Your task to perform on an android device: turn on javascript in the chrome app Image 0: 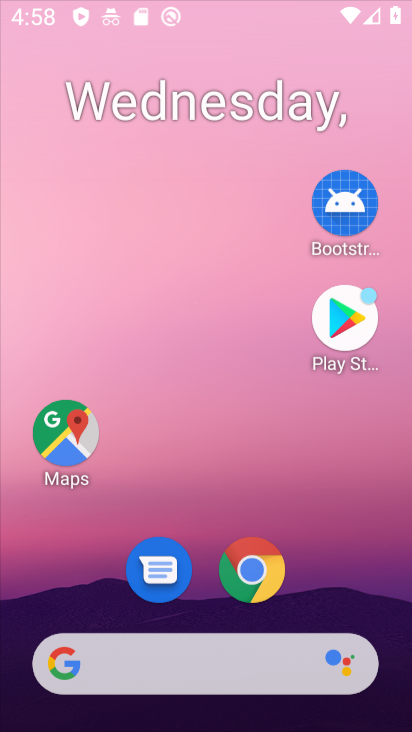
Step 0: drag from (335, 483) to (201, 16)
Your task to perform on an android device: turn on javascript in the chrome app Image 1: 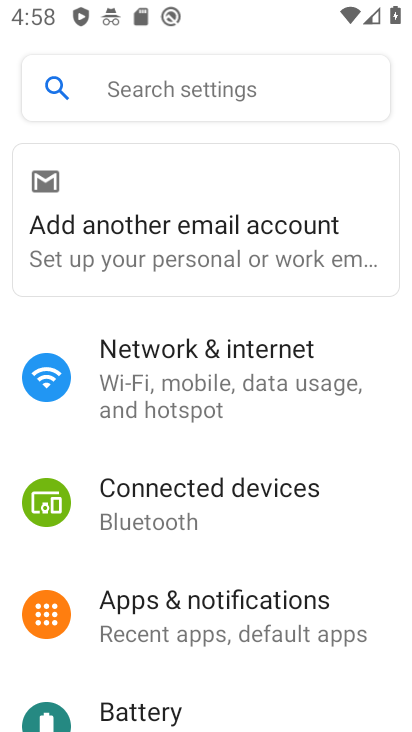
Step 1: press home button
Your task to perform on an android device: turn on javascript in the chrome app Image 2: 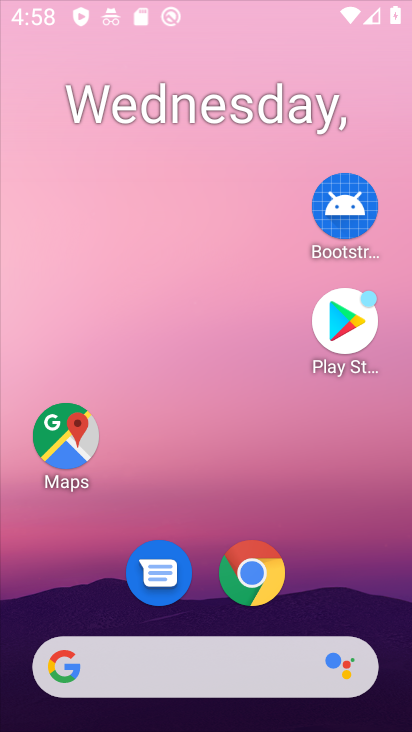
Step 2: drag from (164, 659) to (267, 94)
Your task to perform on an android device: turn on javascript in the chrome app Image 3: 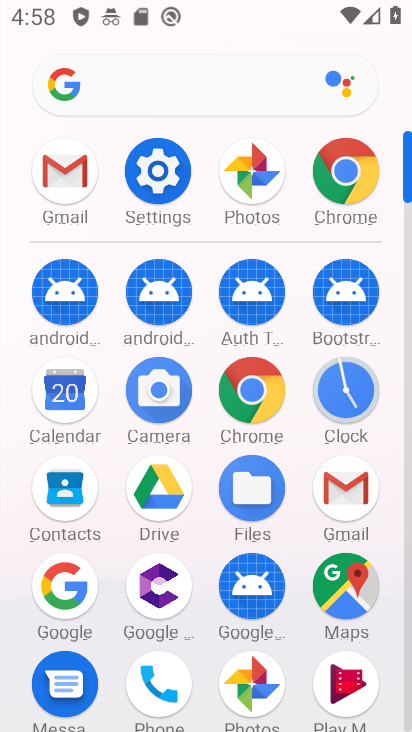
Step 3: click (341, 164)
Your task to perform on an android device: turn on javascript in the chrome app Image 4: 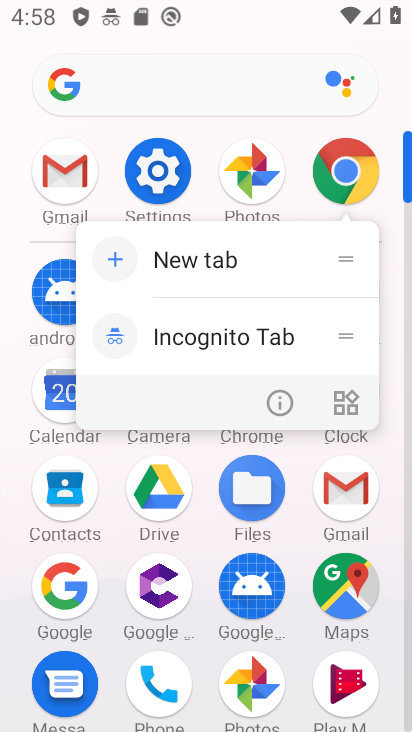
Step 4: click (329, 173)
Your task to perform on an android device: turn on javascript in the chrome app Image 5: 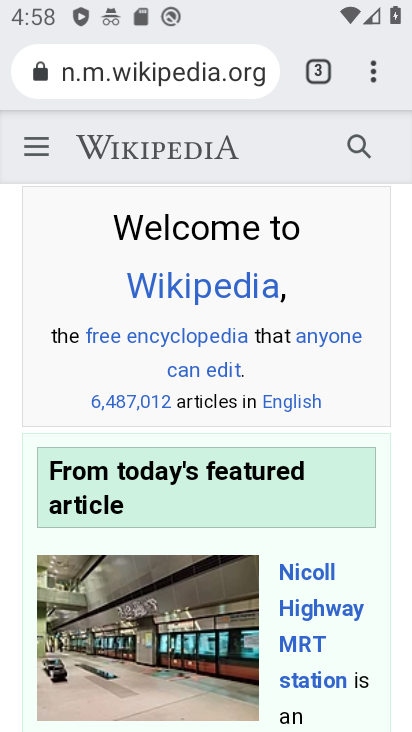
Step 5: click (356, 69)
Your task to perform on an android device: turn on javascript in the chrome app Image 6: 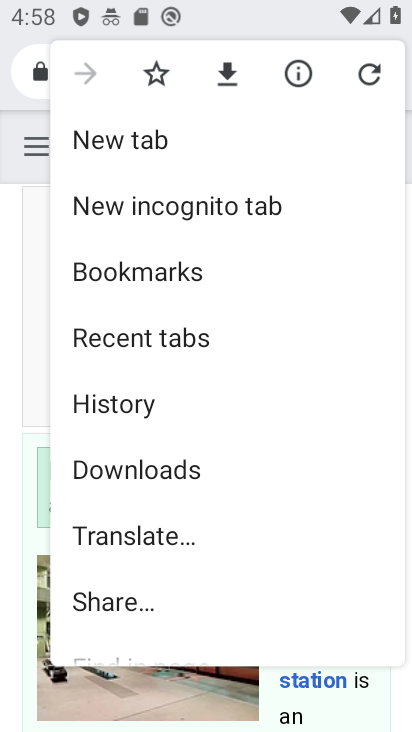
Step 6: drag from (242, 504) to (229, 421)
Your task to perform on an android device: turn on javascript in the chrome app Image 7: 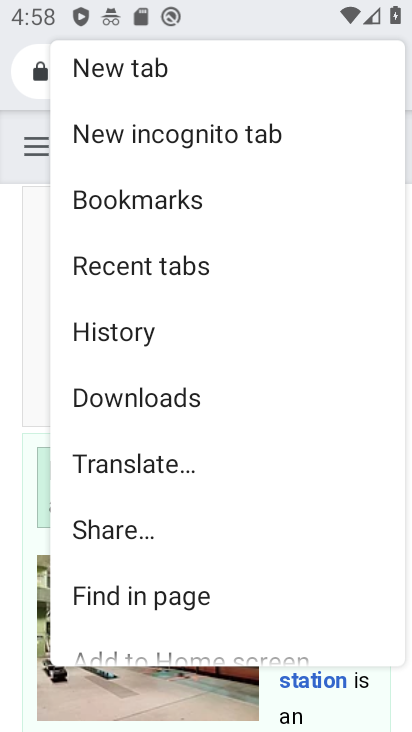
Step 7: drag from (159, 609) to (145, 316)
Your task to perform on an android device: turn on javascript in the chrome app Image 8: 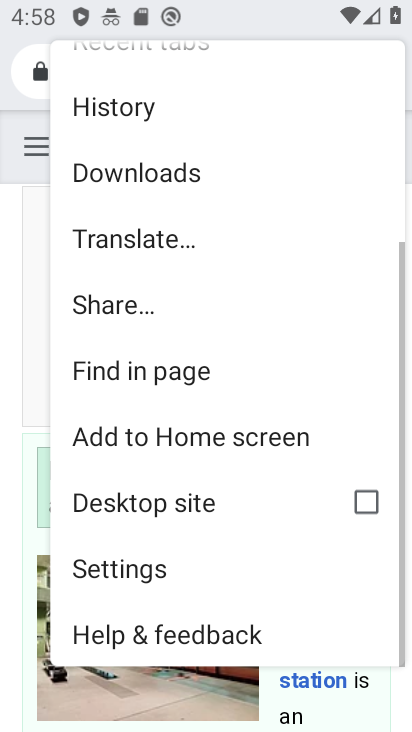
Step 8: click (186, 551)
Your task to perform on an android device: turn on javascript in the chrome app Image 9: 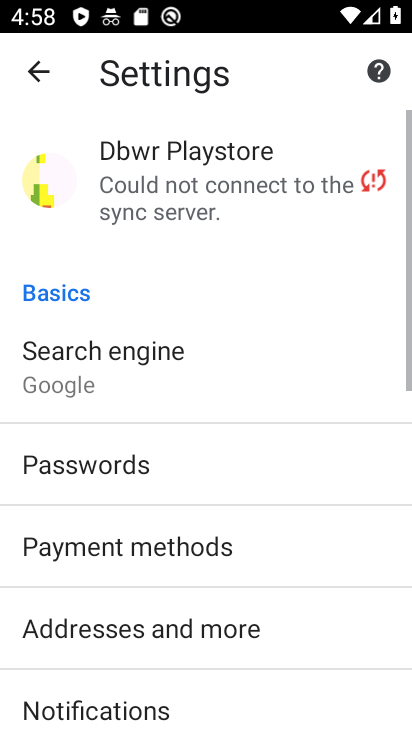
Step 9: drag from (178, 550) to (191, 173)
Your task to perform on an android device: turn on javascript in the chrome app Image 10: 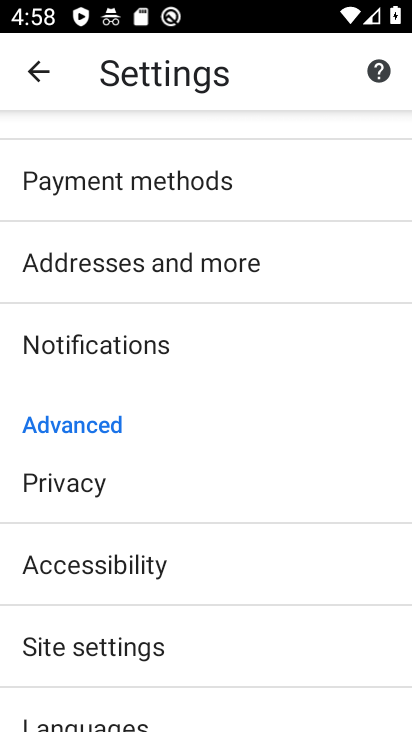
Step 10: click (184, 656)
Your task to perform on an android device: turn on javascript in the chrome app Image 11: 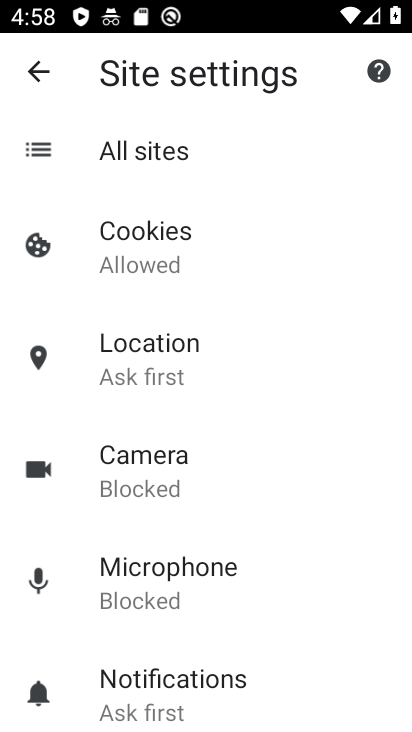
Step 11: click (130, 652)
Your task to perform on an android device: turn on javascript in the chrome app Image 12: 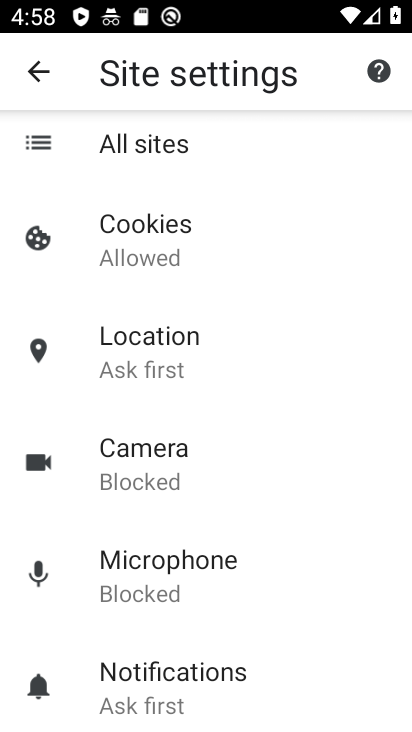
Step 12: drag from (133, 611) to (138, 568)
Your task to perform on an android device: turn on javascript in the chrome app Image 13: 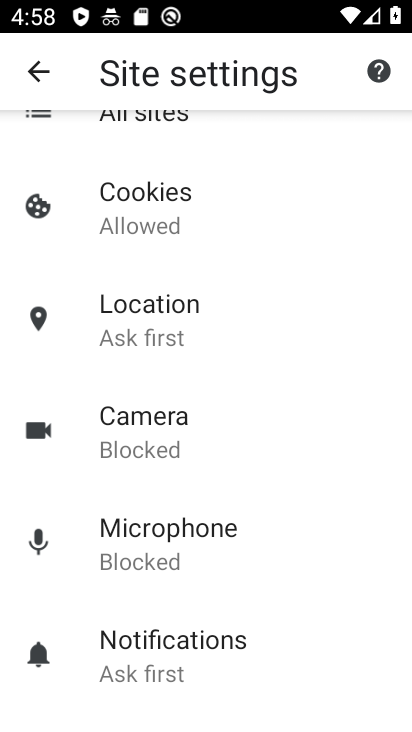
Step 13: click (141, 573)
Your task to perform on an android device: turn on javascript in the chrome app Image 14: 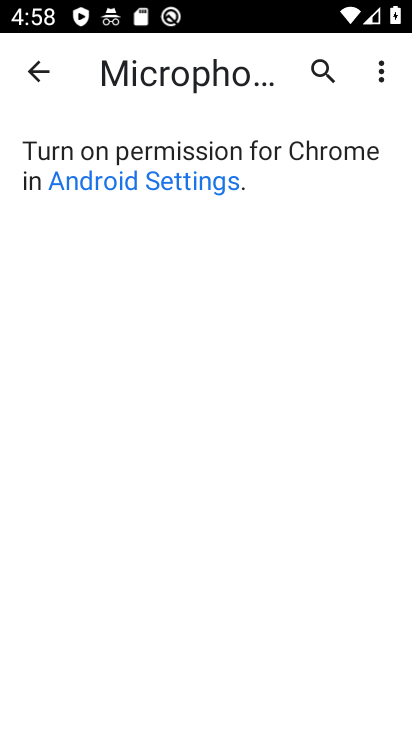
Step 14: click (39, 73)
Your task to perform on an android device: turn on javascript in the chrome app Image 15: 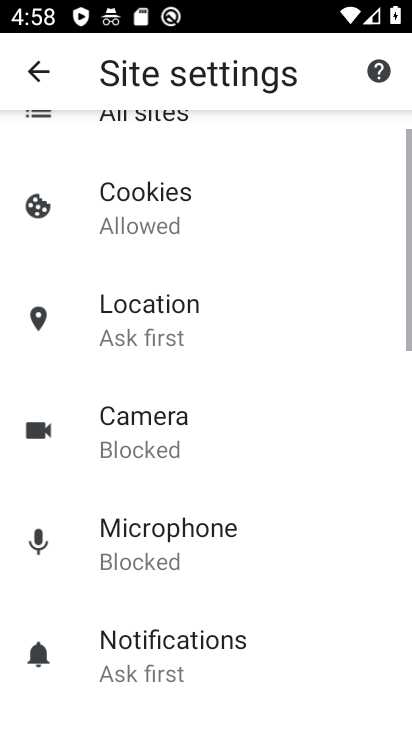
Step 15: drag from (157, 631) to (159, 280)
Your task to perform on an android device: turn on javascript in the chrome app Image 16: 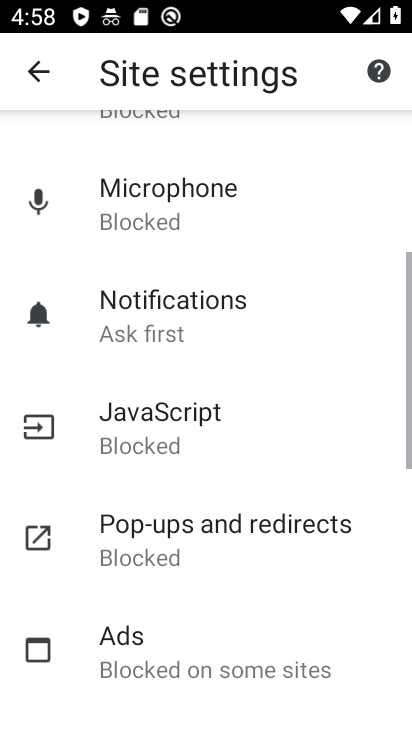
Step 16: click (190, 409)
Your task to perform on an android device: turn on javascript in the chrome app Image 17: 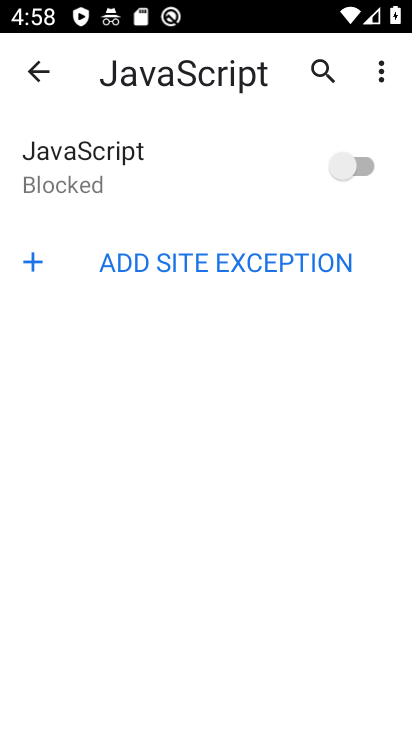
Step 17: click (351, 158)
Your task to perform on an android device: turn on javascript in the chrome app Image 18: 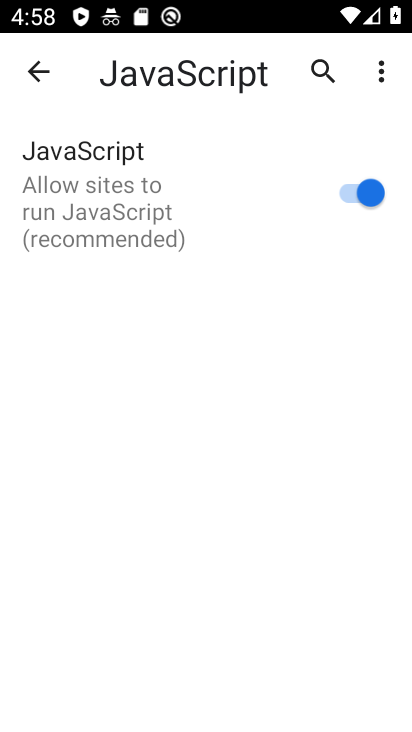
Step 18: task complete